Your task to perform on an android device: turn on notifications settings in the gmail app Image 0: 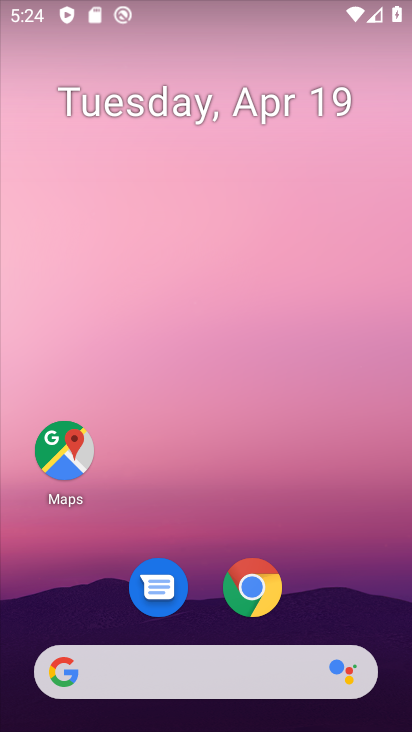
Step 0: drag from (206, 617) to (207, 72)
Your task to perform on an android device: turn on notifications settings in the gmail app Image 1: 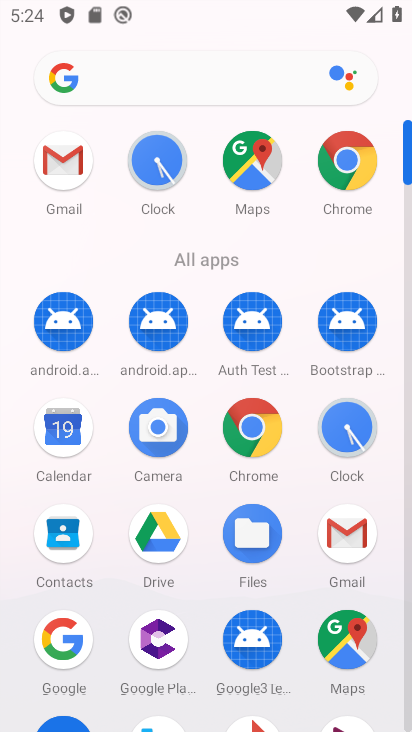
Step 1: click (67, 173)
Your task to perform on an android device: turn on notifications settings in the gmail app Image 2: 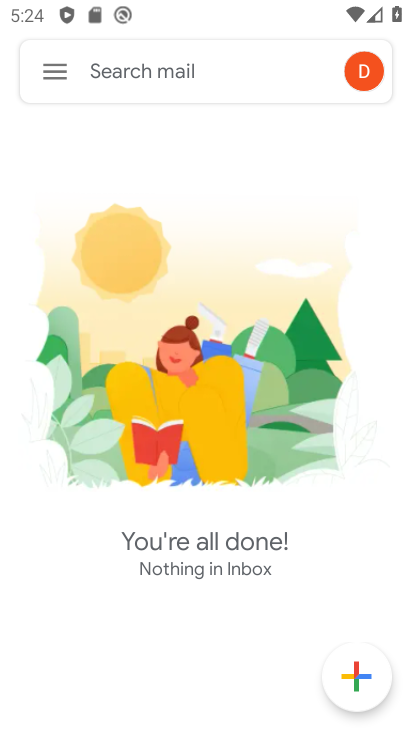
Step 2: click (52, 73)
Your task to perform on an android device: turn on notifications settings in the gmail app Image 3: 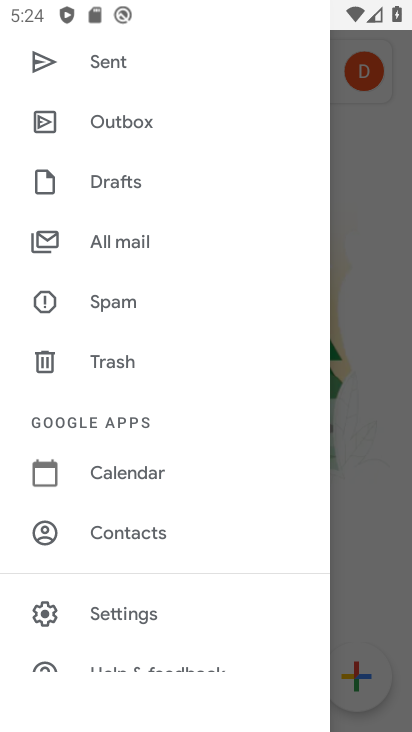
Step 3: click (159, 626)
Your task to perform on an android device: turn on notifications settings in the gmail app Image 4: 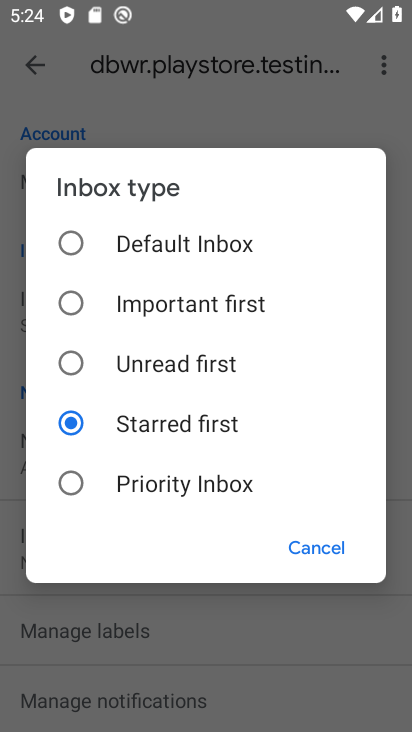
Step 4: click (335, 554)
Your task to perform on an android device: turn on notifications settings in the gmail app Image 5: 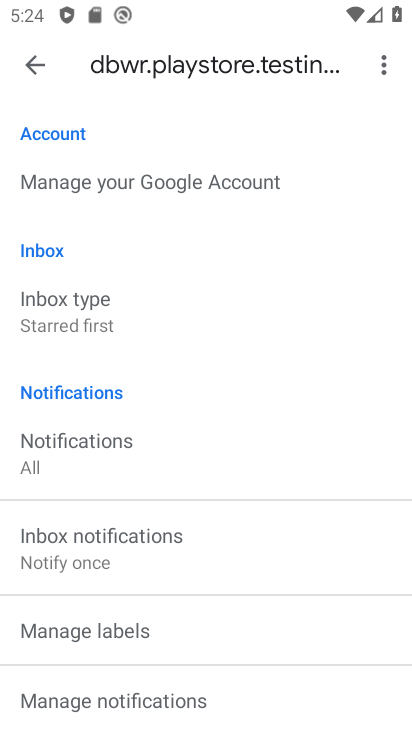
Step 5: click (216, 483)
Your task to perform on an android device: turn on notifications settings in the gmail app Image 6: 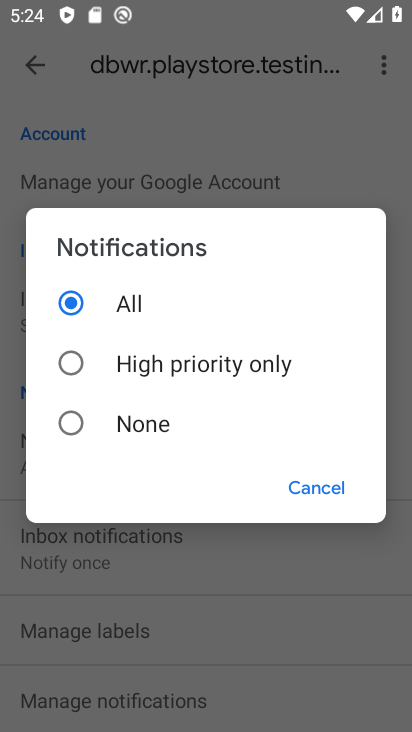
Step 6: task complete